Your task to perform on an android device: What's the news in Pakistan? Image 0: 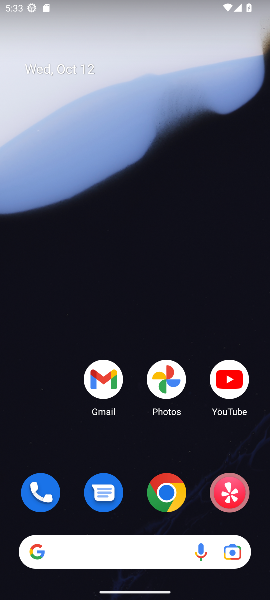
Step 0: click (164, 496)
Your task to perform on an android device: What's the news in Pakistan? Image 1: 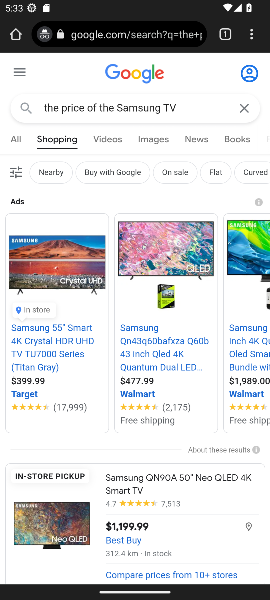
Step 1: click (134, 105)
Your task to perform on an android device: What's the news in Pakistan? Image 2: 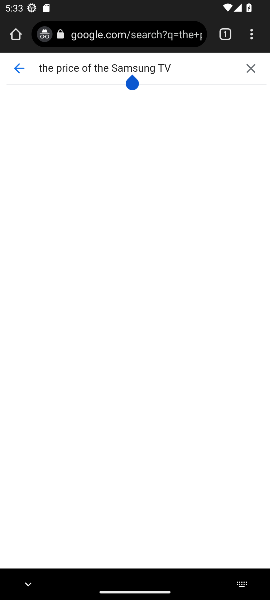
Step 2: click (249, 66)
Your task to perform on an android device: What's the news in Pakistan? Image 3: 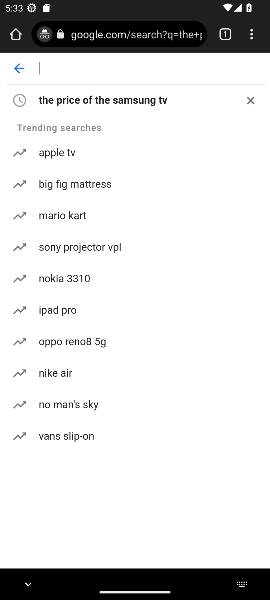
Step 3: type "Pakistan"
Your task to perform on an android device: What's the news in Pakistan? Image 4: 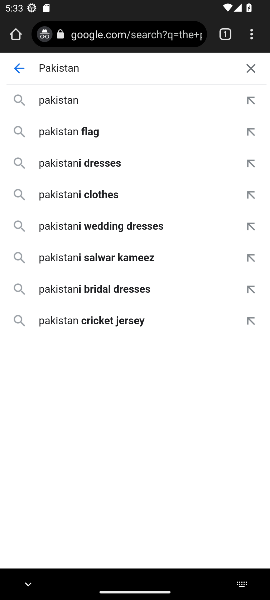
Step 4: click (78, 101)
Your task to perform on an android device: What's the news in Pakistan? Image 5: 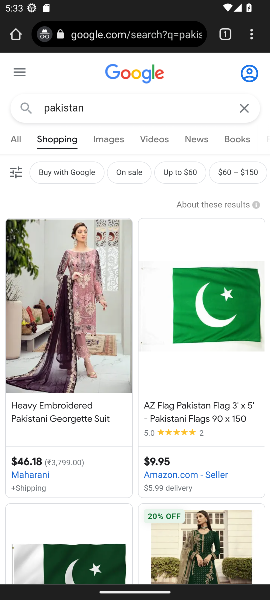
Step 5: click (194, 140)
Your task to perform on an android device: What's the news in Pakistan? Image 6: 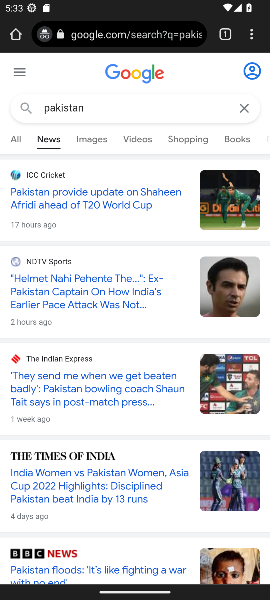
Step 6: click (36, 207)
Your task to perform on an android device: What's the news in Pakistan? Image 7: 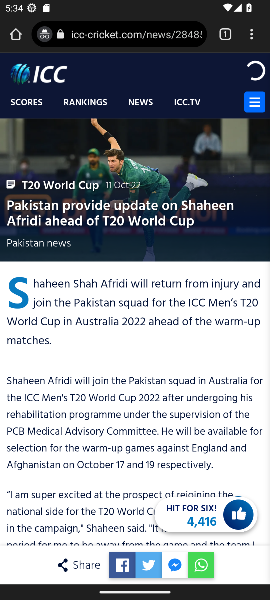
Step 7: task complete